Your task to perform on an android device: Search for vegetarian restaurants on Maps Image 0: 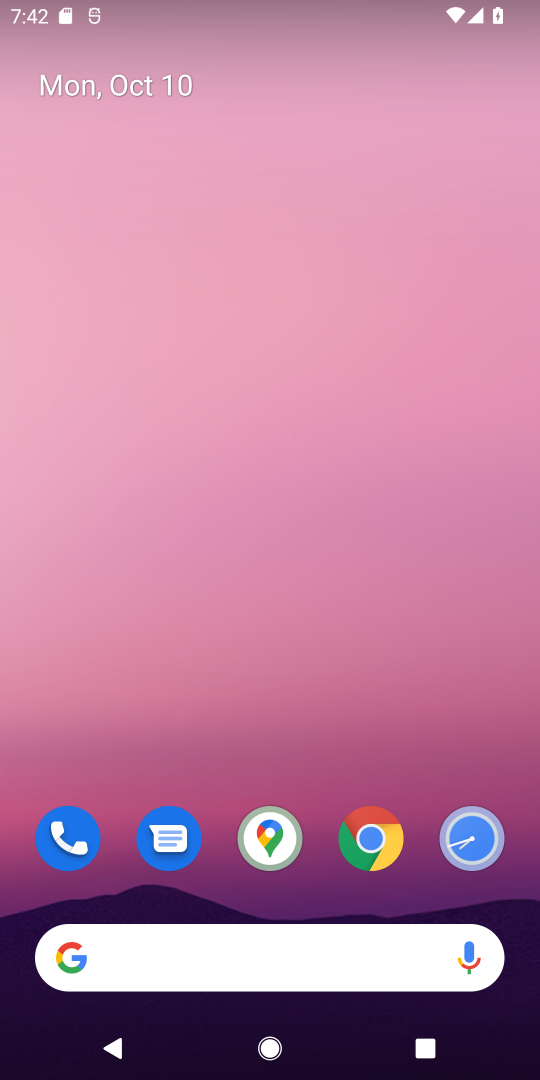
Step 0: click (274, 837)
Your task to perform on an android device: Search for vegetarian restaurants on Maps Image 1: 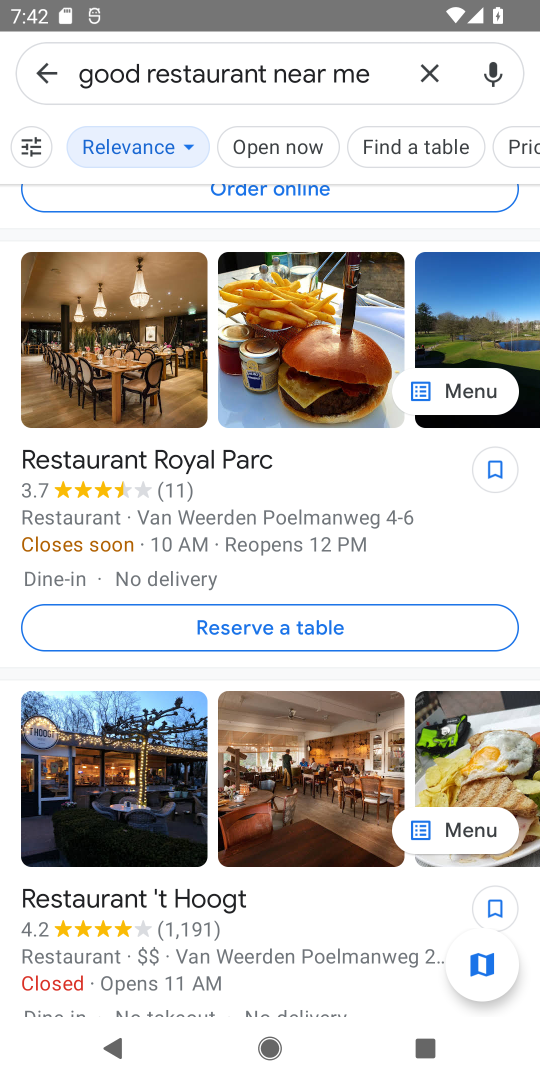
Step 1: click (422, 73)
Your task to perform on an android device: Search for vegetarian restaurants on Maps Image 2: 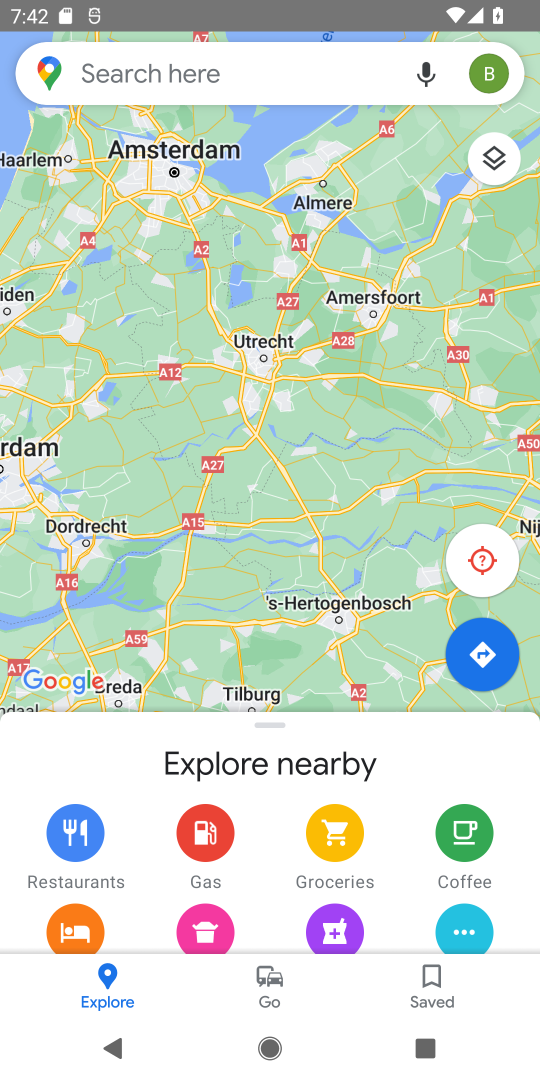
Step 2: click (159, 74)
Your task to perform on an android device: Search for vegetarian restaurants on Maps Image 3: 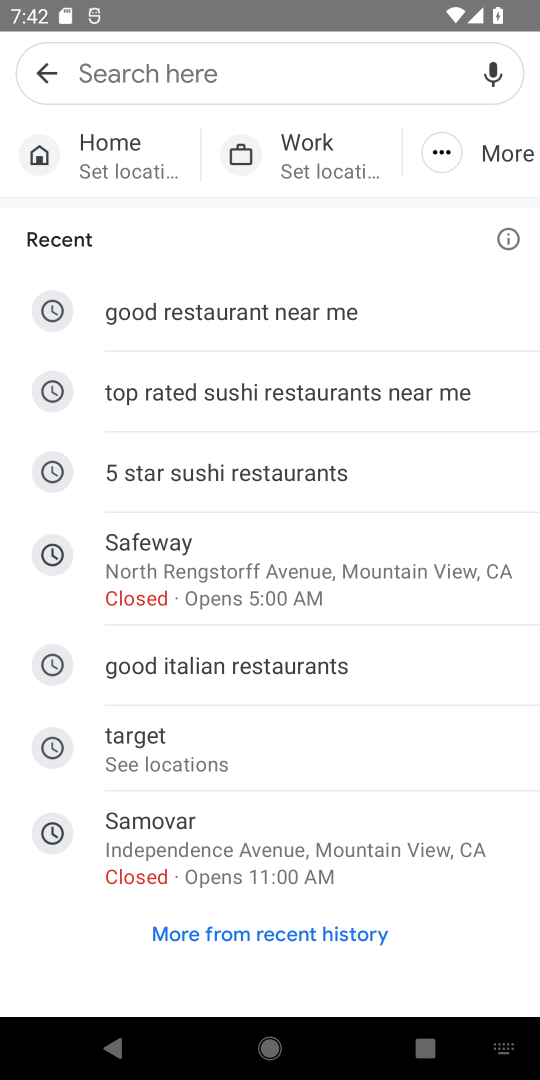
Step 3: type "vegetarian restaurants"
Your task to perform on an android device: Search for vegetarian restaurants on Maps Image 4: 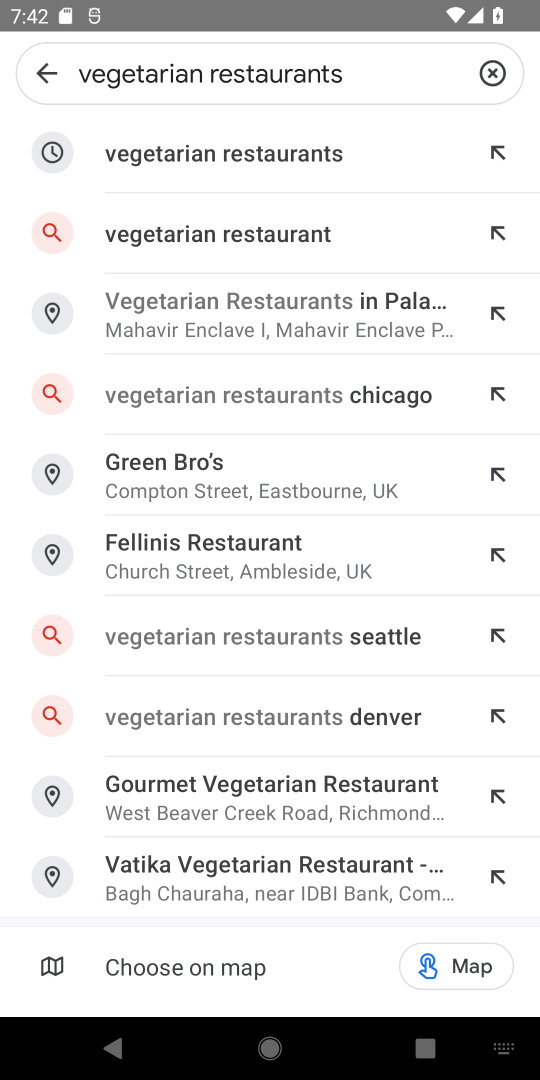
Step 4: click (219, 153)
Your task to perform on an android device: Search for vegetarian restaurants on Maps Image 5: 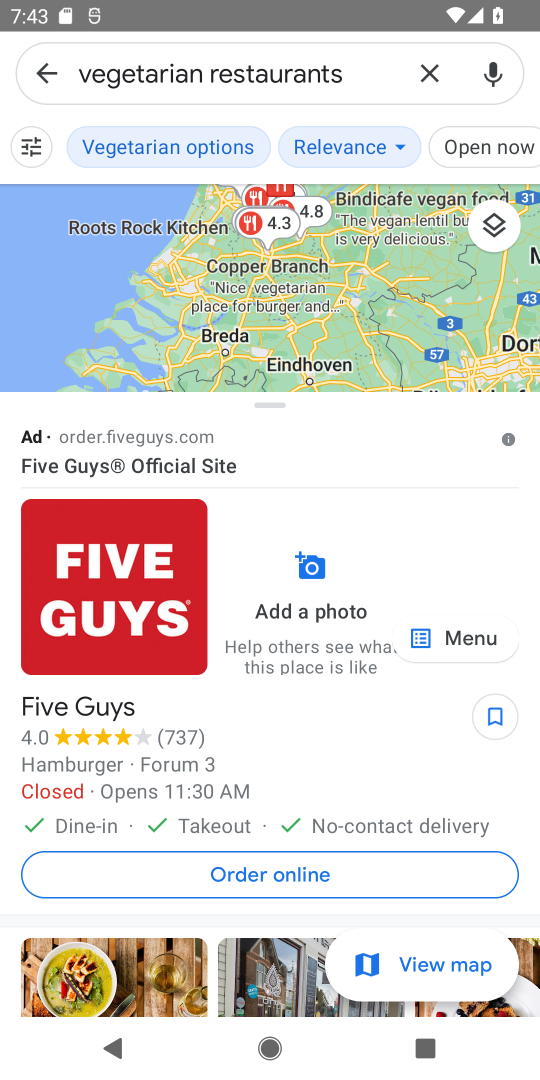
Step 5: task complete